Your task to perform on an android device: change the clock display to digital Image 0: 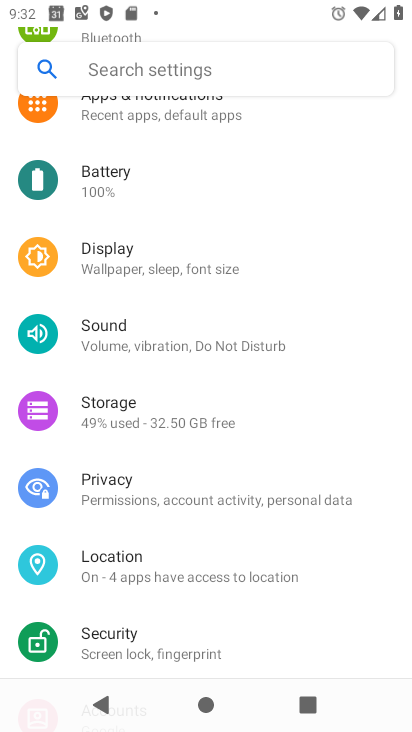
Step 0: press home button
Your task to perform on an android device: change the clock display to digital Image 1: 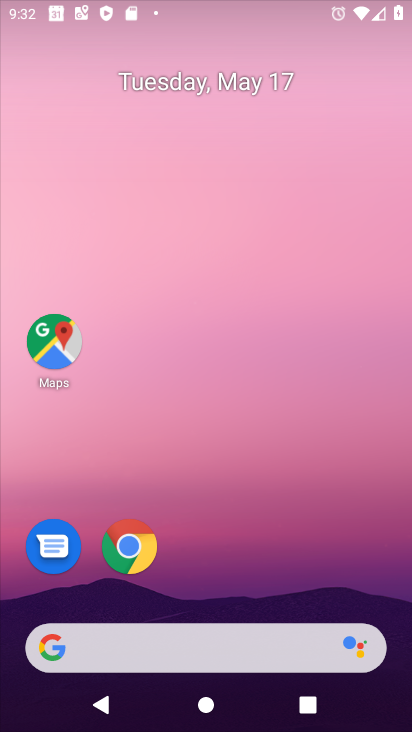
Step 1: drag from (274, 587) to (332, 61)
Your task to perform on an android device: change the clock display to digital Image 2: 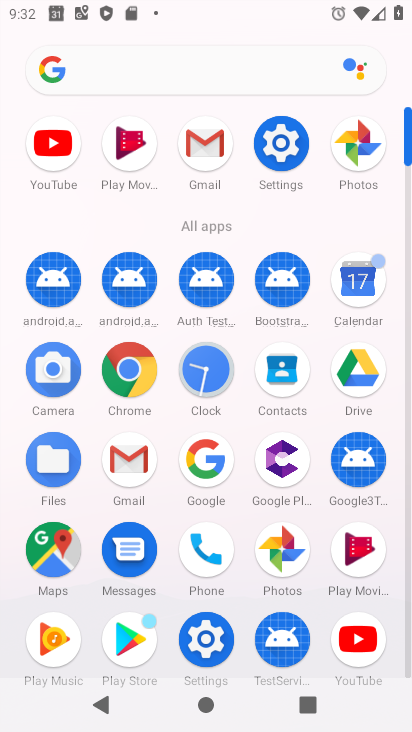
Step 2: click (205, 362)
Your task to perform on an android device: change the clock display to digital Image 3: 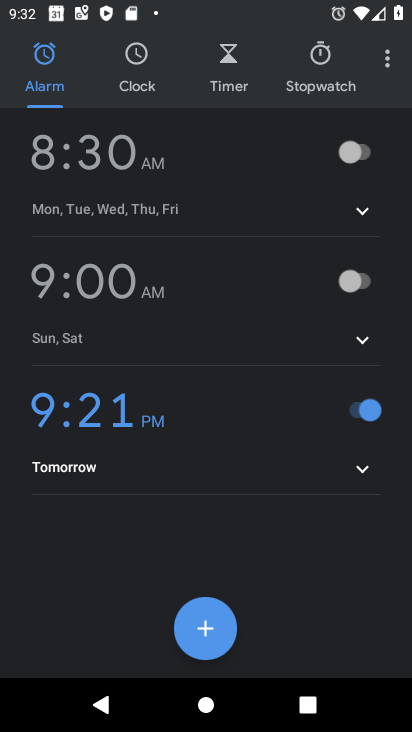
Step 3: click (371, 64)
Your task to perform on an android device: change the clock display to digital Image 4: 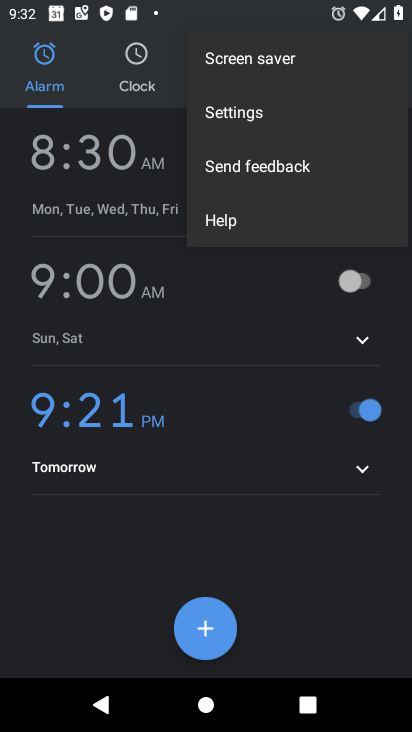
Step 4: click (266, 110)
Your task to perform on an android device: change the clock display to digital Image 5: 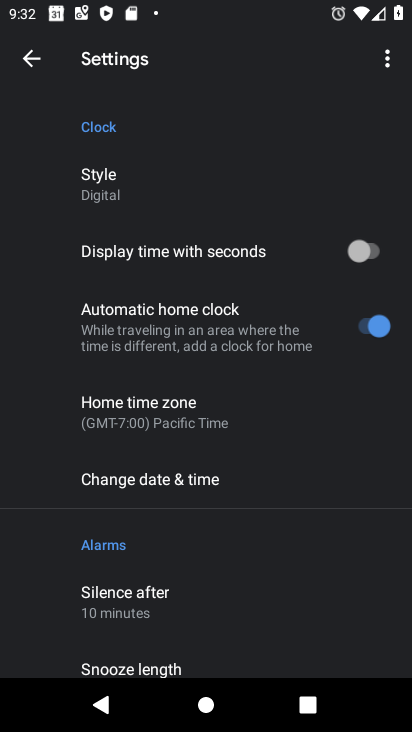
Step 5: click (95, 194)
Your task to perform on an android device: change the clock display to digital Image 6: 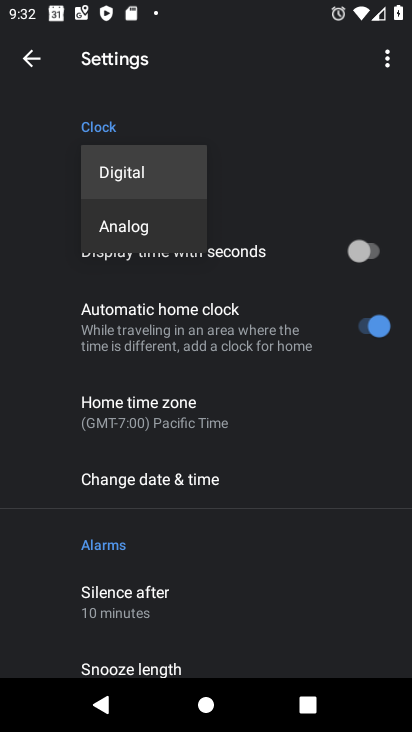
Step 6: click (162, 174)
Your task to perform on an android device: change the clock display to digital Image 7: 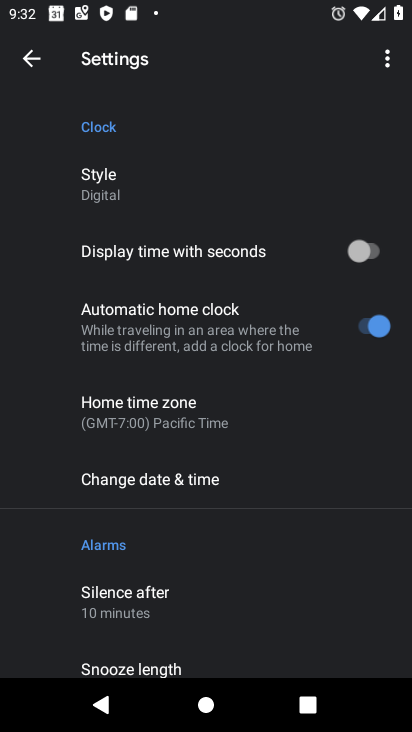
Step 7: task complete